Your task to perform on an android device: open app "Google Photos" Image 0: 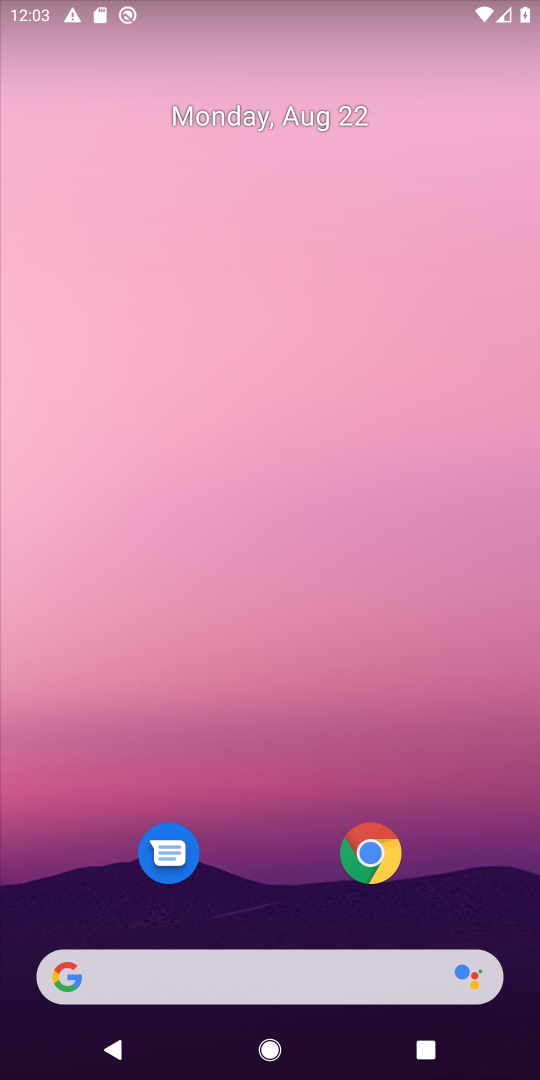
Step 0: drag from (209, 923) to (224, 467)
Your task to perform on an android device: open app "Google Photos" Image 1: 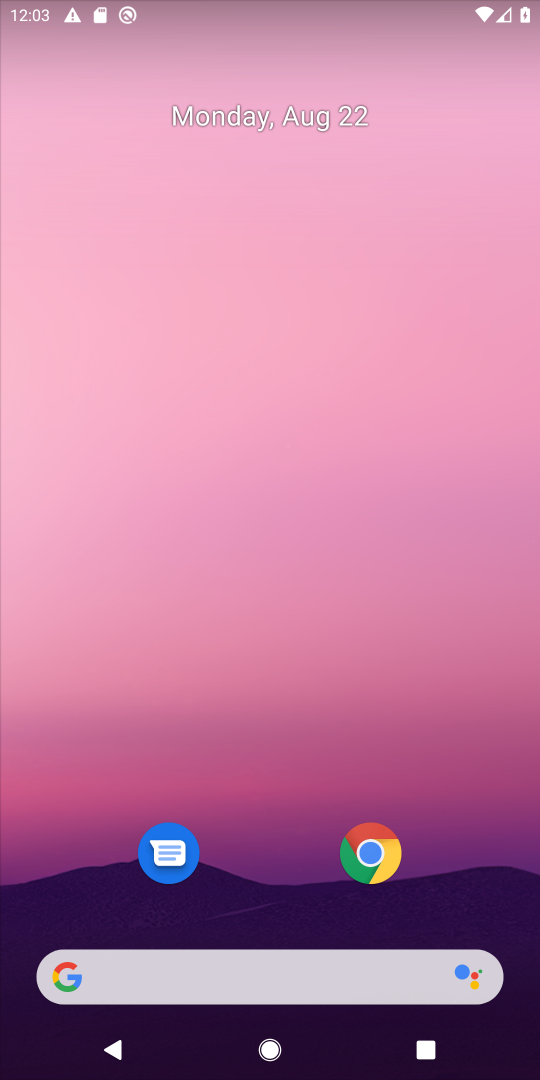
Step 1: drag from (234, 902) to (241, 71)
Your task to perform on an android device: open app "Google Photos" Image 2: 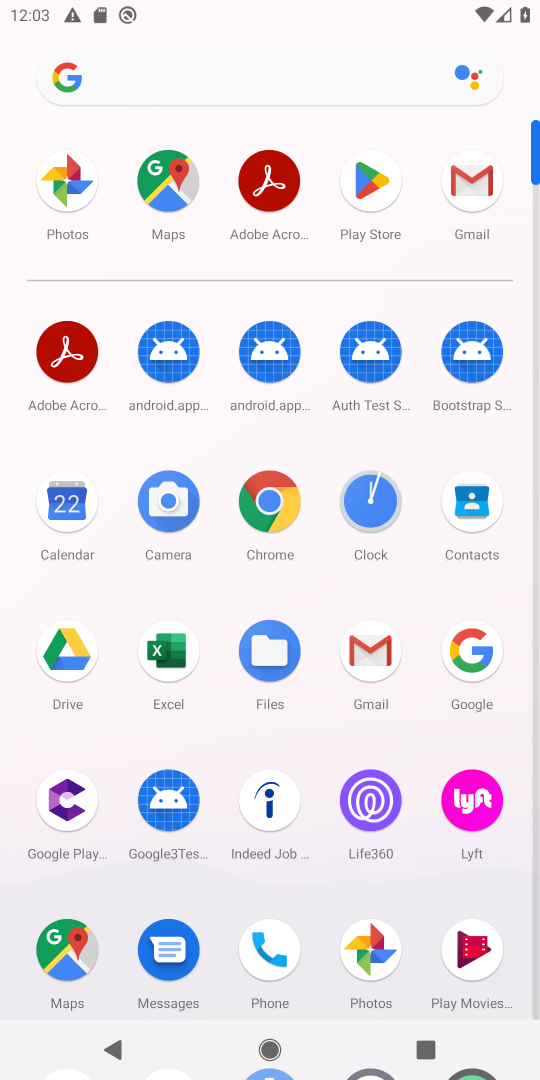
Step 2: click (362, 189)
Your task to perform on an android device: open app "Google Photos" Image 3: 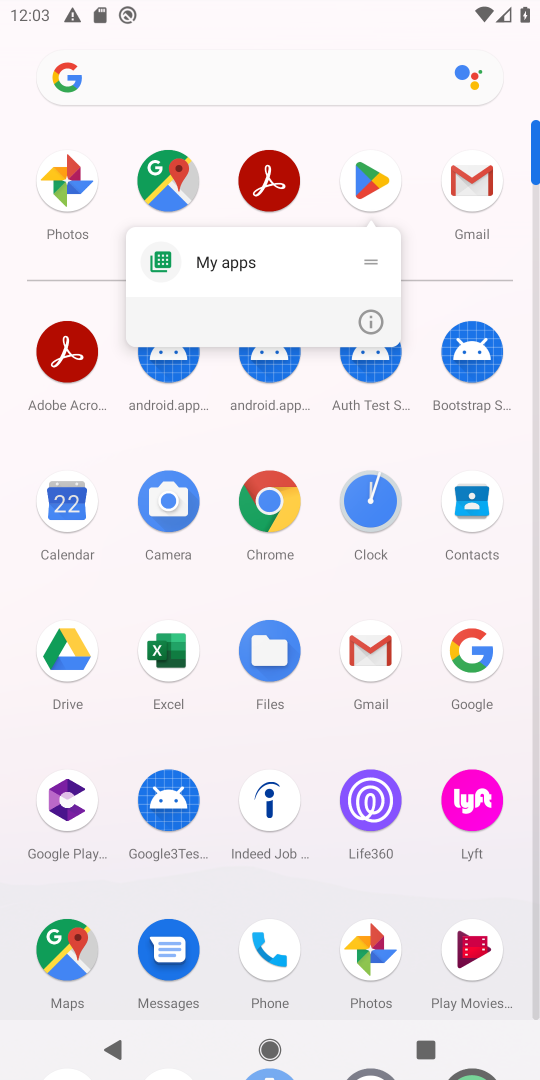
Step 3: click (362, 189)
Your task to perform on an android device: open app "Google Photos" Image 4: 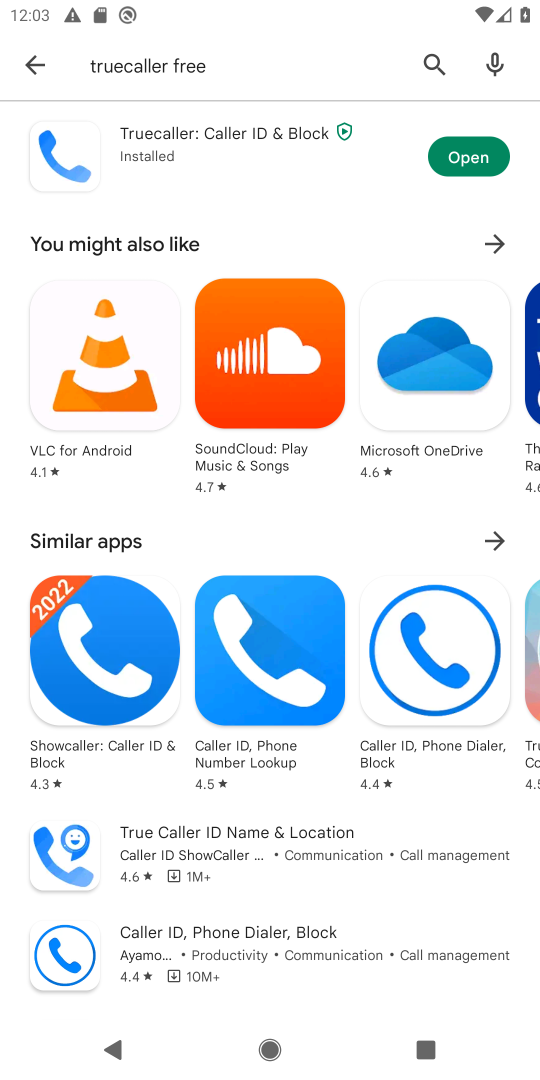
Step 4: click (31, 35)
Your task to perform on an android device: open app "Google Photos" Image 5: 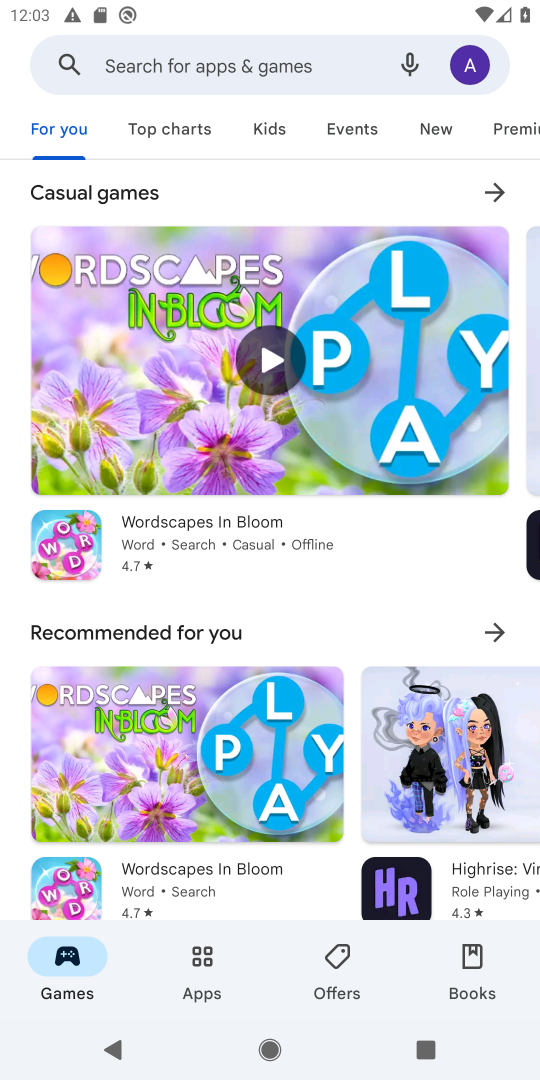
Step 5: click (244, 50)
Your task to perform on an android device: open app "Google Photos" Image 6: 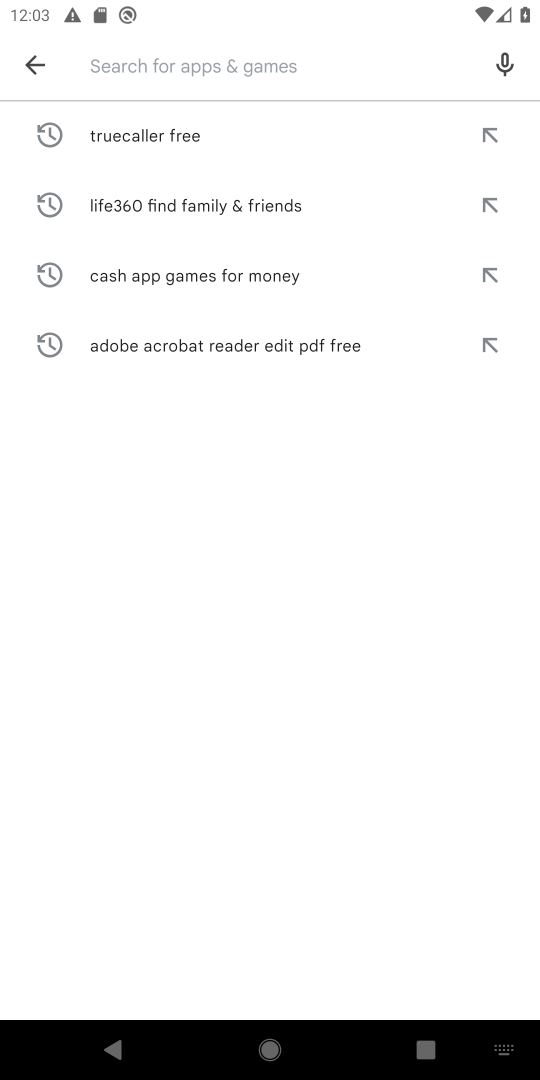
Step 6: type "Google Photos "
Your task to perform on an android device: open app "Google Photos" Image 7: 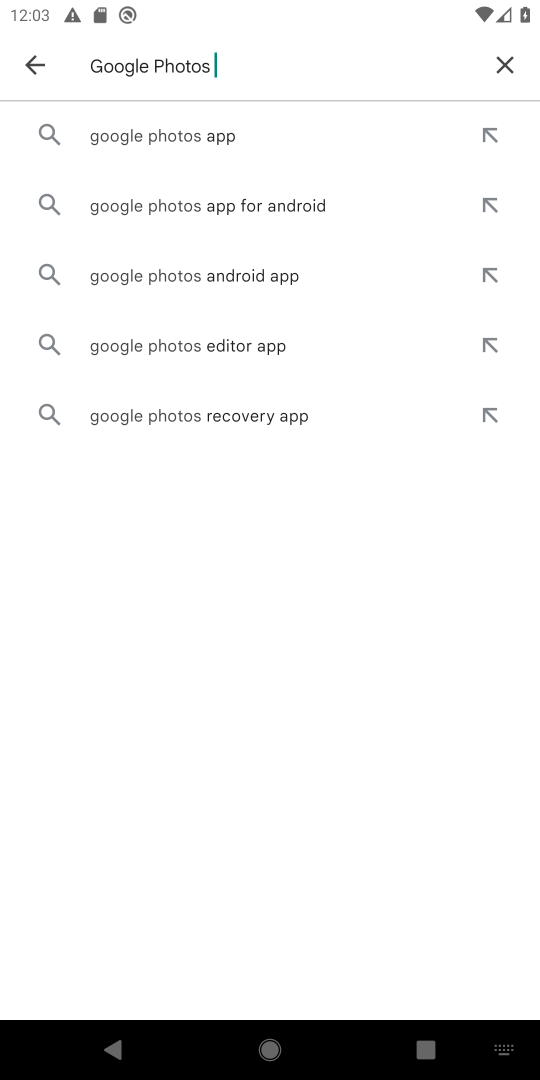
Step 7: click (188, 137)
Your task to perform on an android device: open app "Google Photos" Image 8: 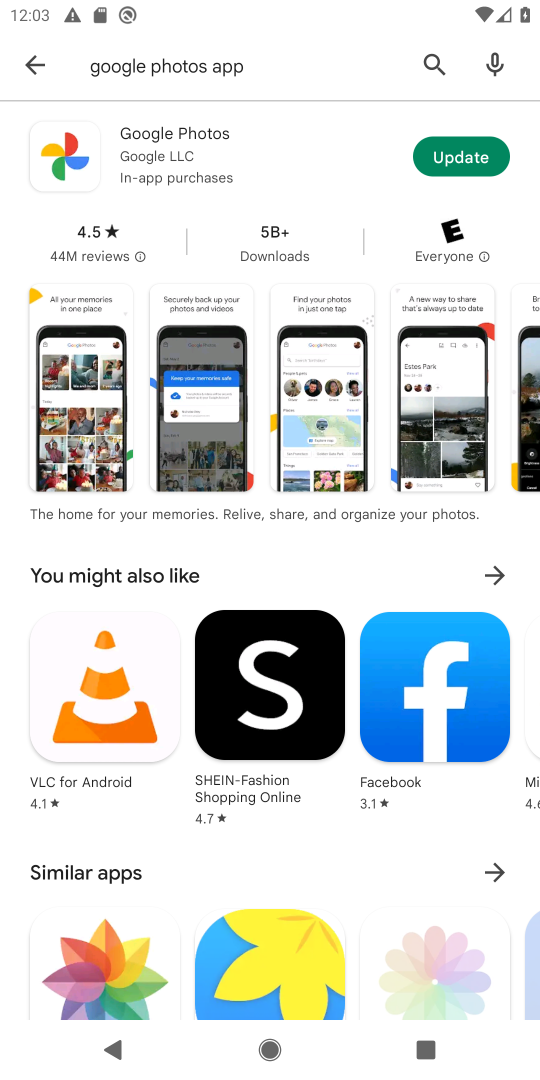
Step 8: click (460, 165)
Your task to perform on an android device: open app "Google Photos" Image 9: 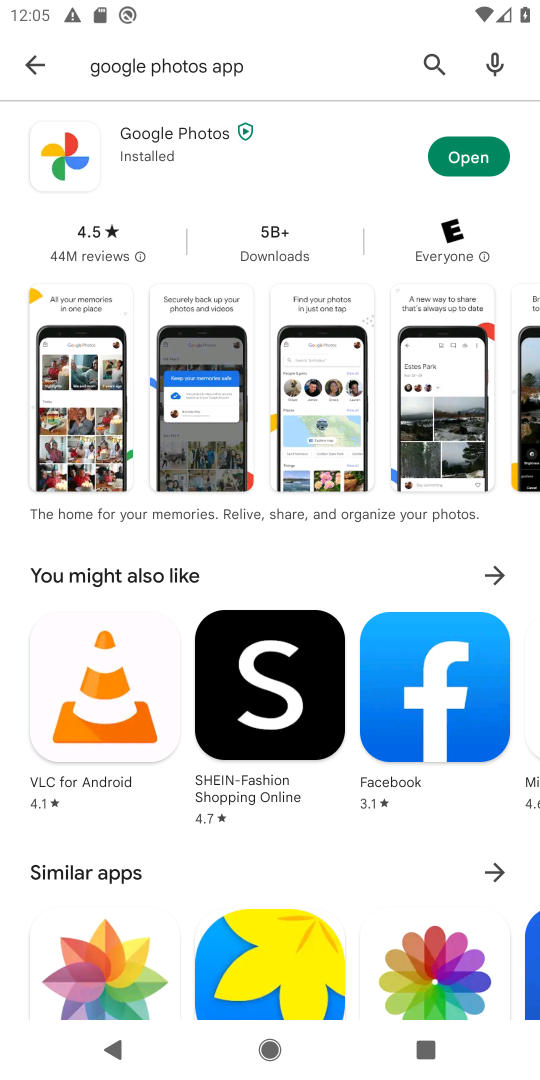
Step 9: click (460, 165)
Your task to perform on an android device: open app "Google Photos" Image 10: 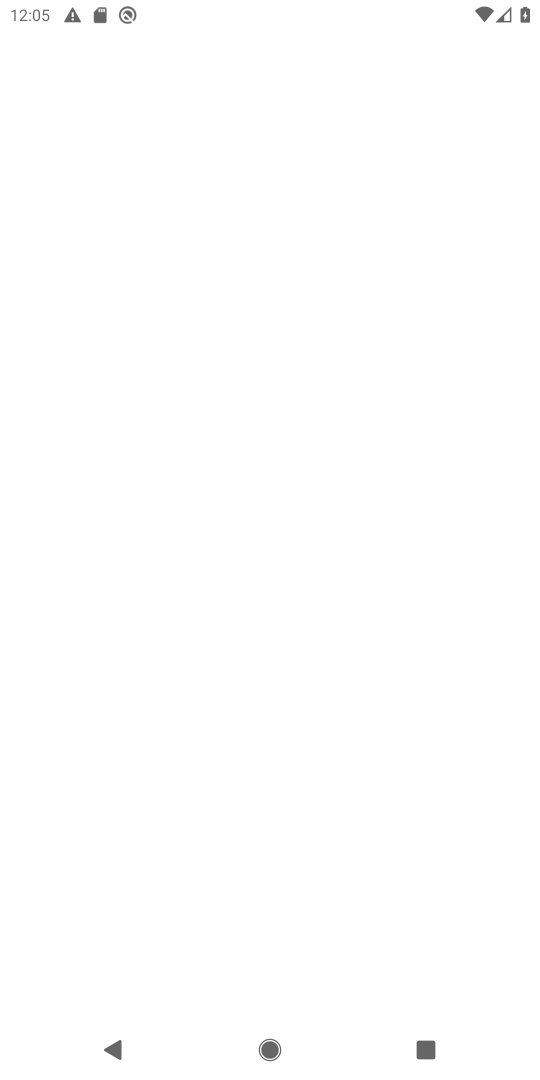
Step 10: task complete